Your task to perform on an android device: Search for seafood restaurants on Google Maps Image 0: 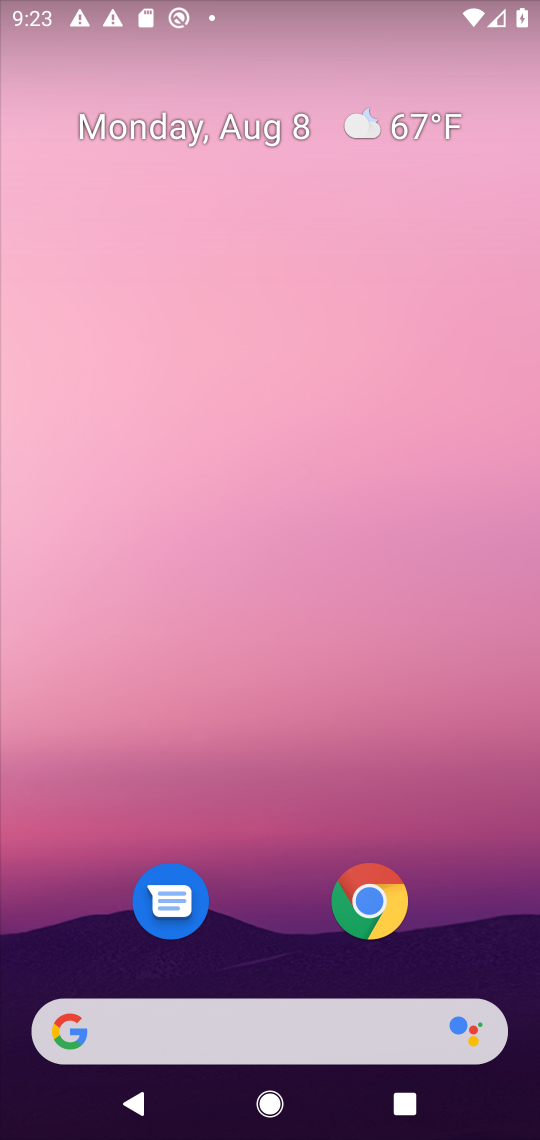
Step 0: click (254, 302)
Your task to perform on an android device: Search for seafood restaurants on Google Maps Image 1: 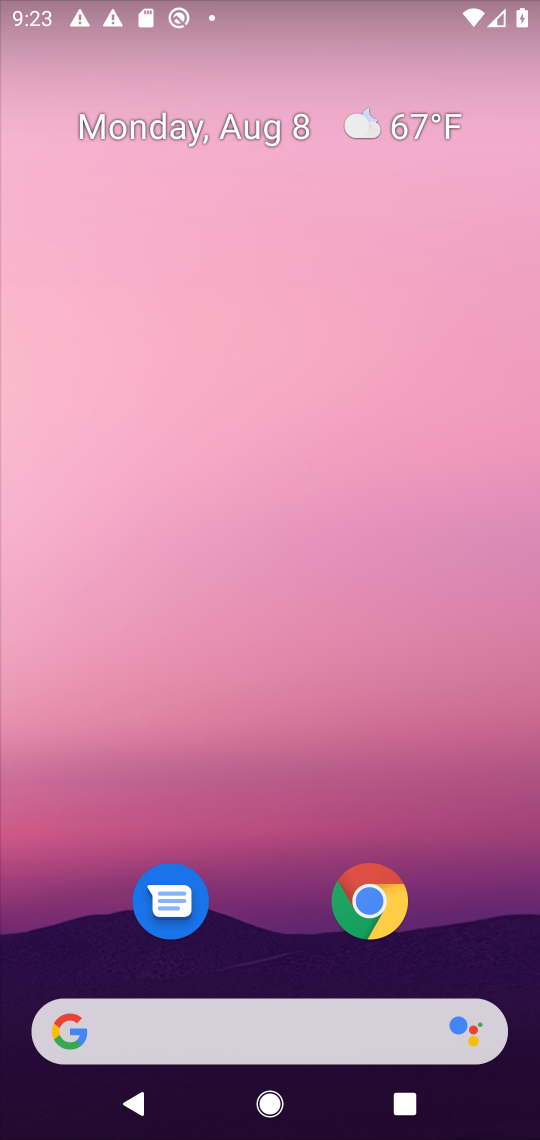
Step 1: drag from (249, 953) to (242, 183)
Your task to perform on an android device: Search for seafood restaurants on Google Maps Image 2: 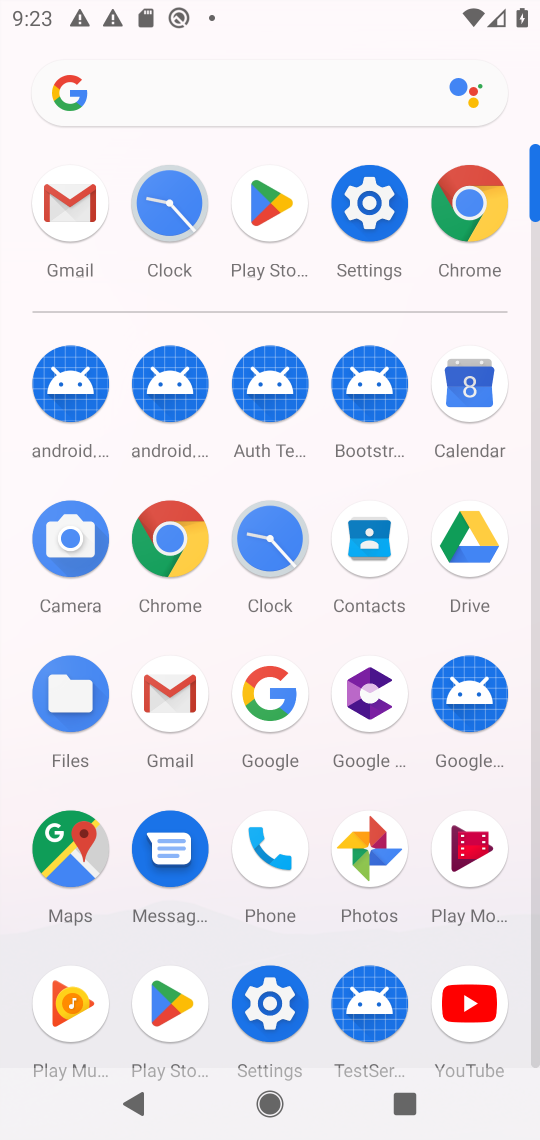
Step 2: click (50, 874)
Your task to perform on an android device: Search for seafood restaurants on Google Maps Image 3: 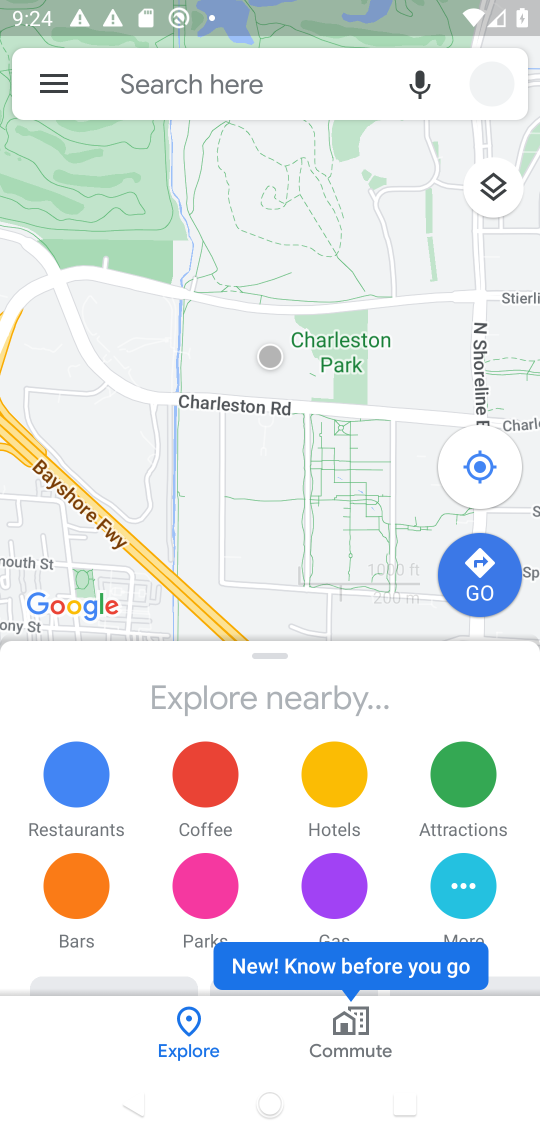
Step 3: click (228, 81)
Your task to perform on an android device: Search for seafood restaurants on Google Maps Image 4: 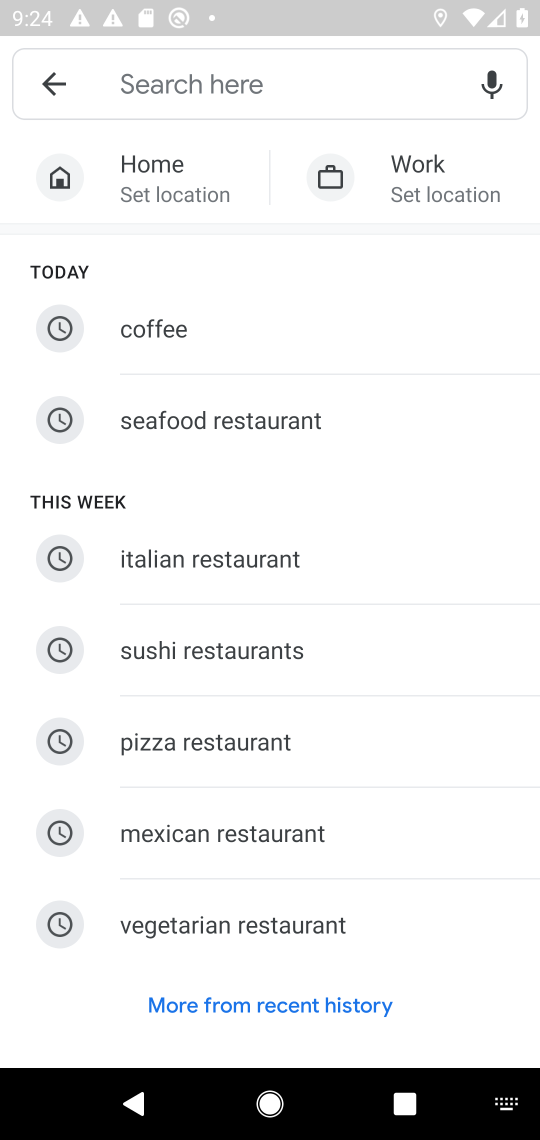
Step 4: type "seafood restaurants"
Your task to perform on an android device: Search for seafood restaurants on Google Maps Image 5: 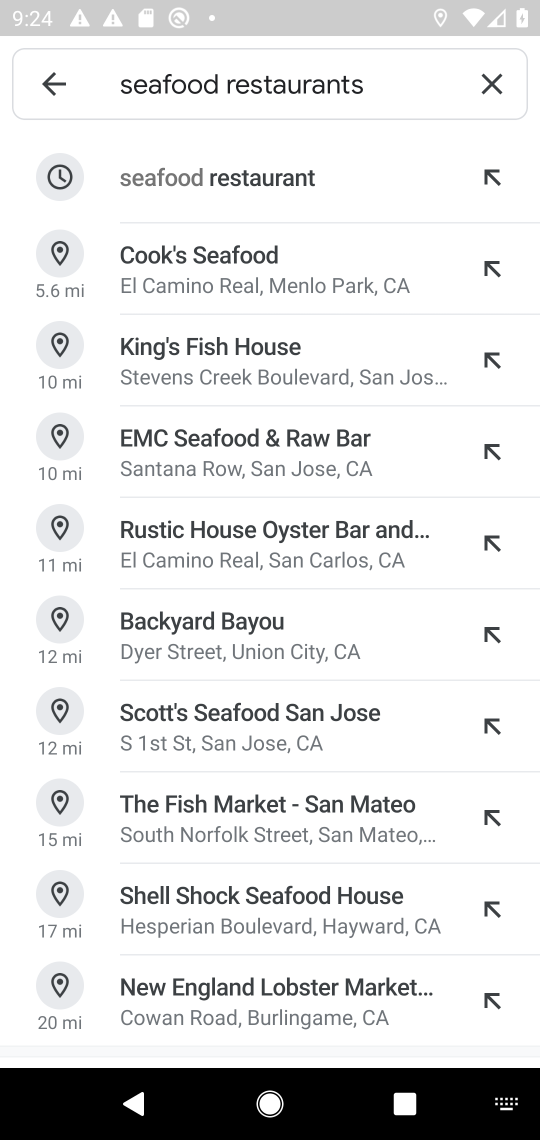
Step 5: click (234, 183)
Your task to perform on an android device: Search for seafood restaurants on Google Maps Image 6: 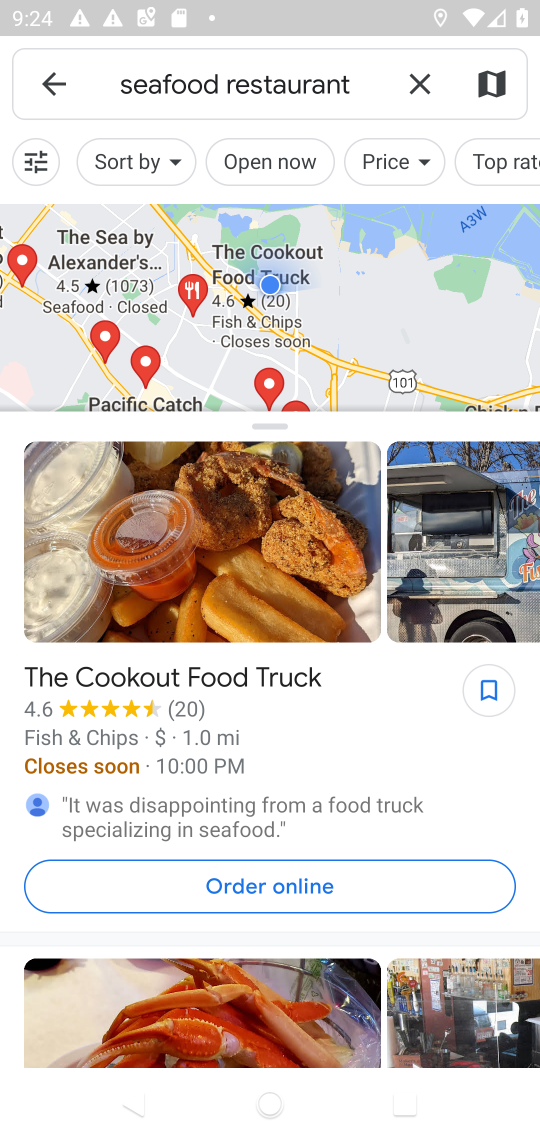
Step 6: task complete